Your task to perform on an android device: Go to Google Image 0: 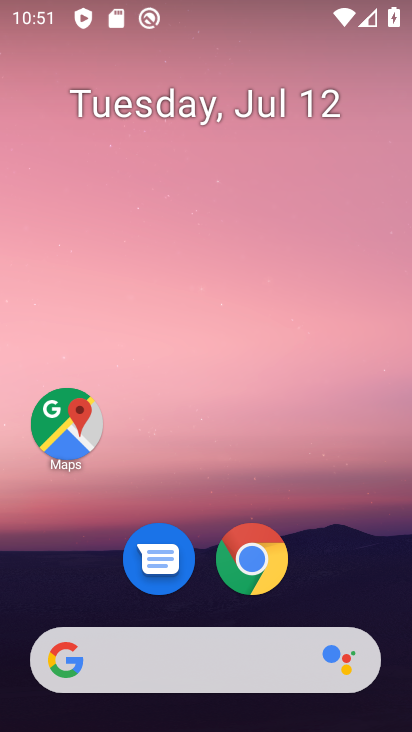
Step 0: drag from (244, 573) to (236, 174)
Your task to perform on an android device: Go to Google Image 1: 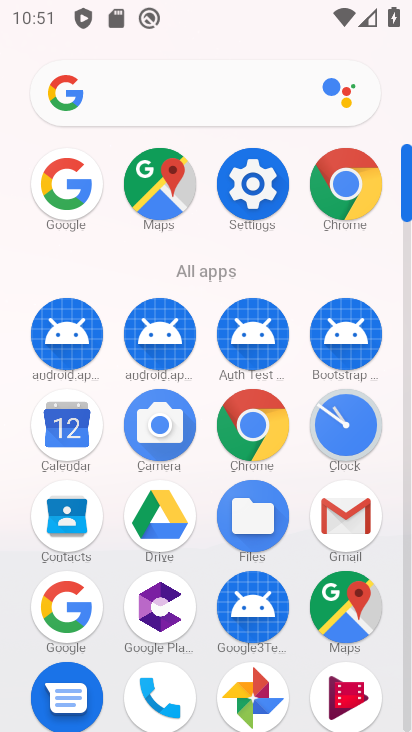
Step 1: drag from (234, 491) to (196, 331)
Your task to perform on an android device: Go to Google Image 2: 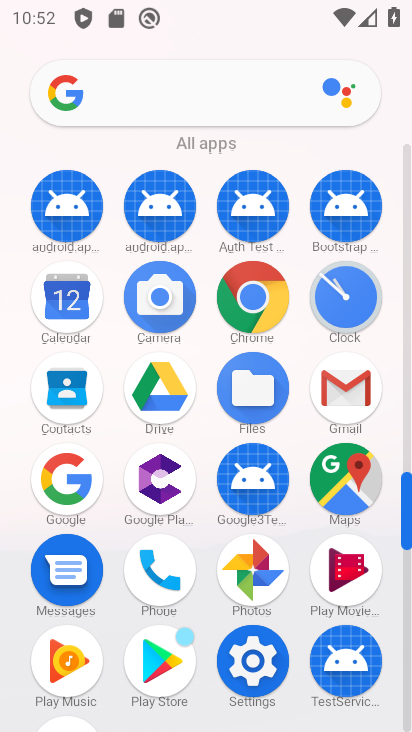
Step 2: click (82, 498)
Your task to perform on an android device: Go to Google Image 3: 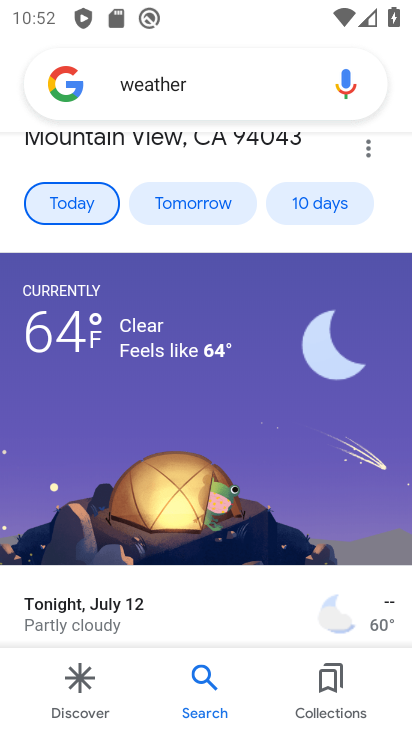
Step 3: task complete